Your task to perform on an android device: Go to battery settings Image 0: 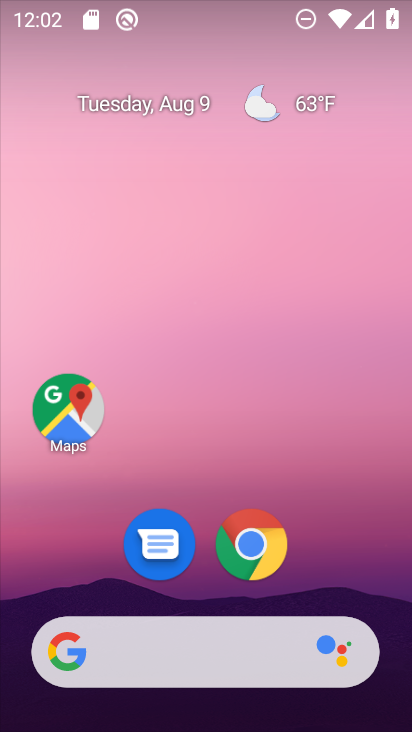
Step 0: drag from (176, 658) to (223, 110)
Your task to perform on an android device: Go to battery settings Image 1: 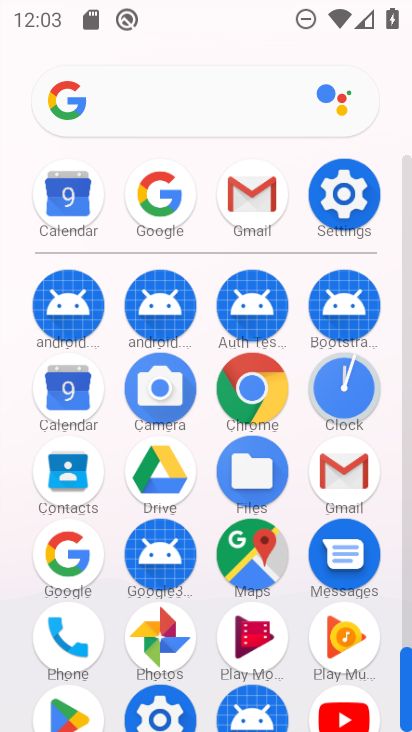
Step 1: click (344, 194)
Your task to perform on an android device: Go to battery settings Image 2: 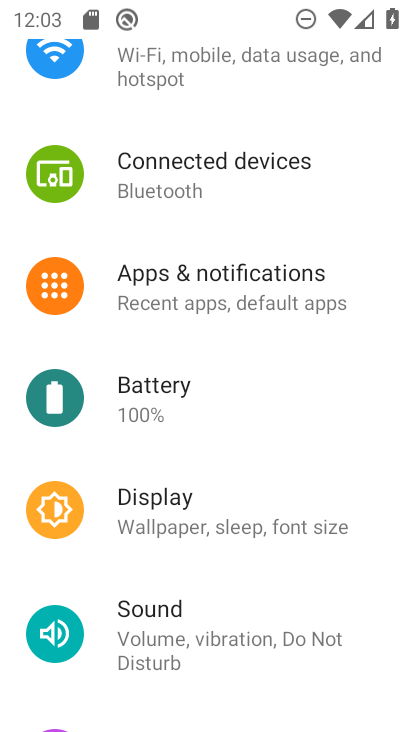
Step 2: click (149, 396)
Your task to perform on an android device: Go to battery settings Image 3: 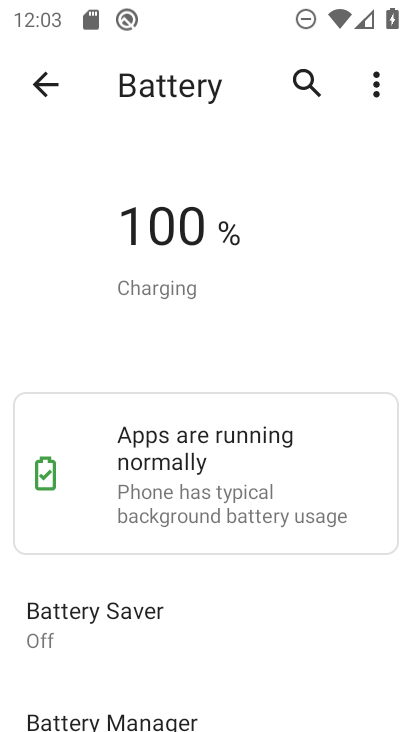
Step 3: task complete